Your task to perform on an android device: Open internet settings Image 0: 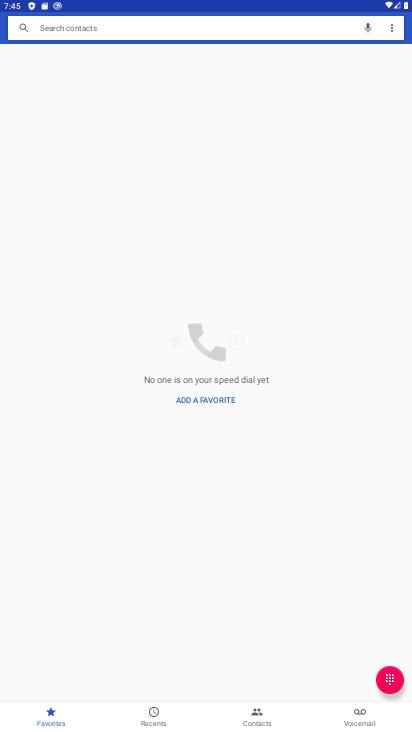
Step 0: press home button
Your task to perform on an android device: Open internet settings Image 1: 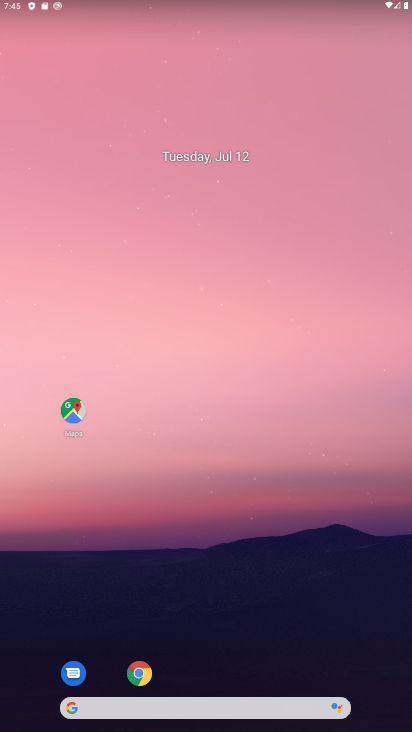
Step 1: drag from (202, 703) to (254, 245)
Your task to perform on an android device: Open internet settings Image 2: 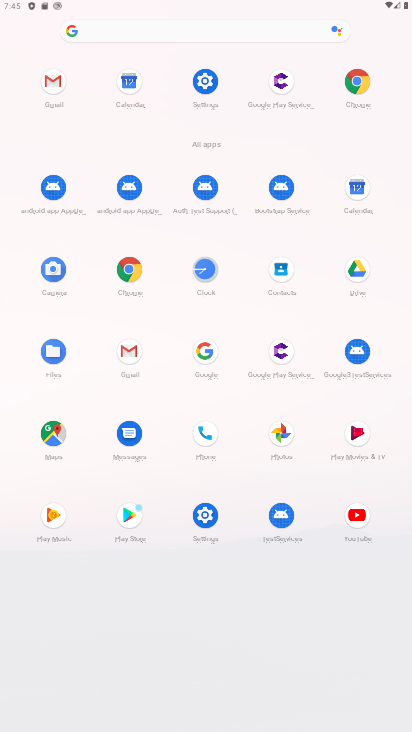
Step 2: click (205, 79)
Your task to perform on an android device: Open internet settings Image 3: 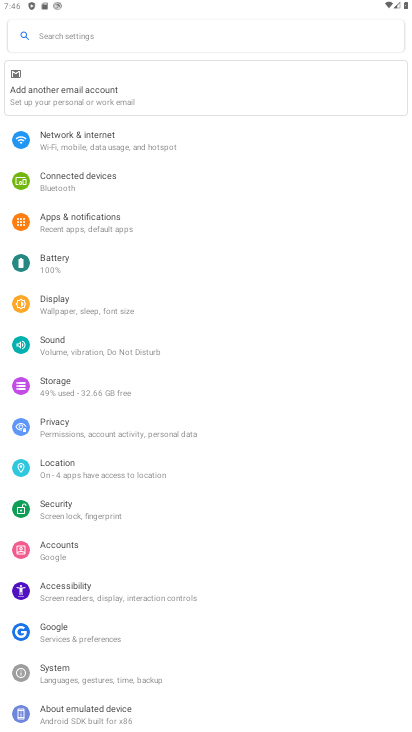
Step 3: click (125, 146)
Your task to perform on an android device: Open internet settings Image 4: 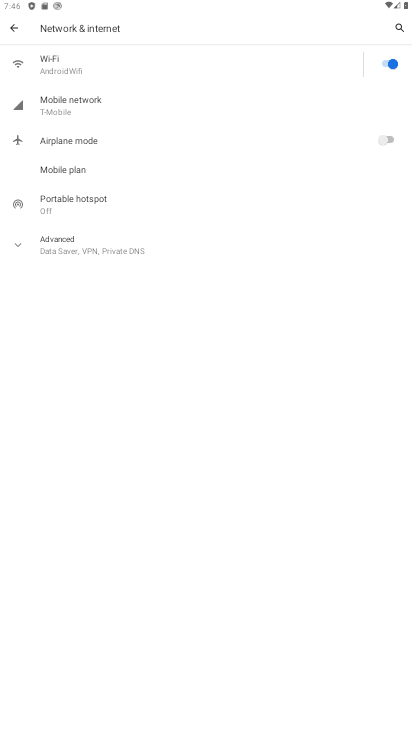
Step 4: task complete